Your task to perform on an android device: check google app version Image 0: 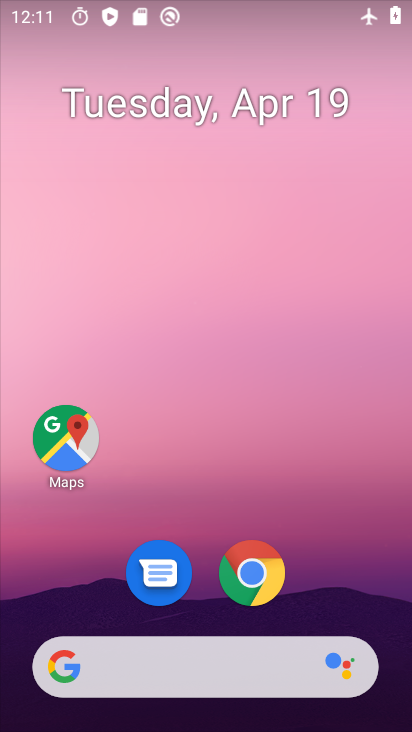
Step 0: drag from (319, 627) to (312, 75)
Your task to perform on an android device: check google app version Image 1: 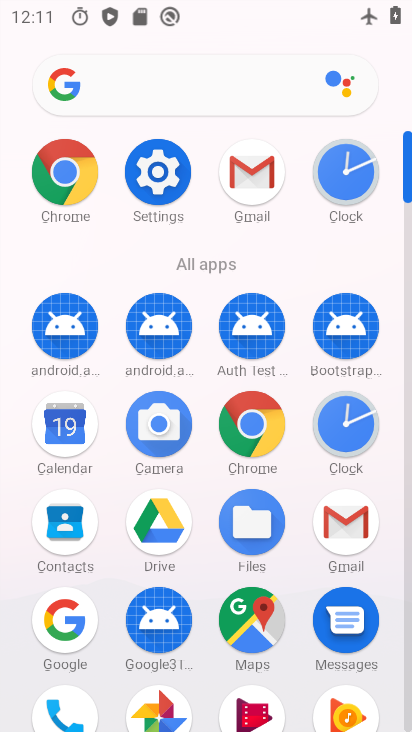
Step 1: drag from (284, 689) to (289, 394)
Your task to perform on an android device: check google app version Image 2: 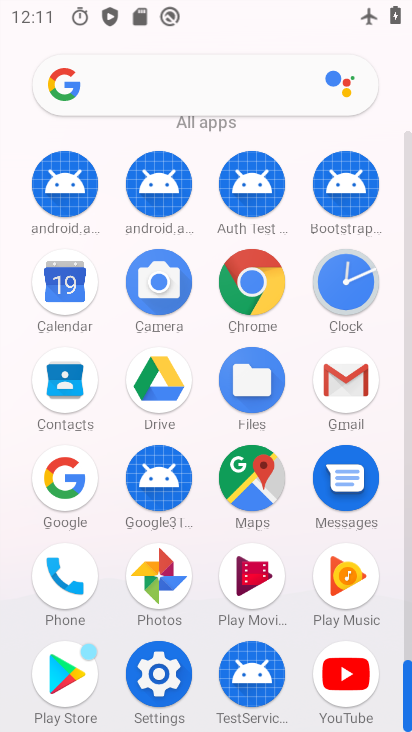
Step 2: click (62, 474)
Your task to perform on an android device: check google app version Image 3: 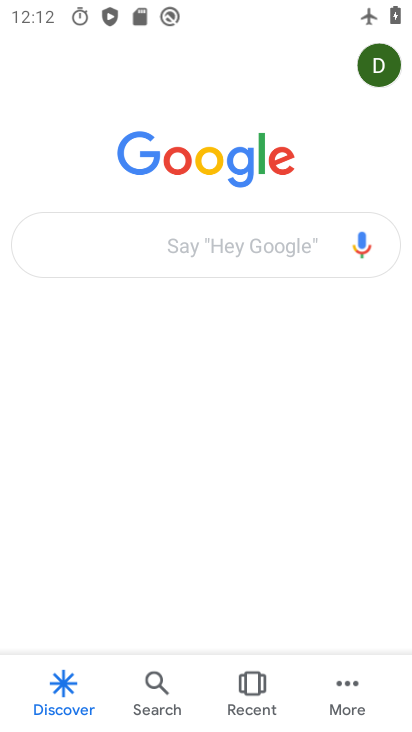
Step 3: click (353, 684)
Your task to perform on an android device: check google app version Image 4: 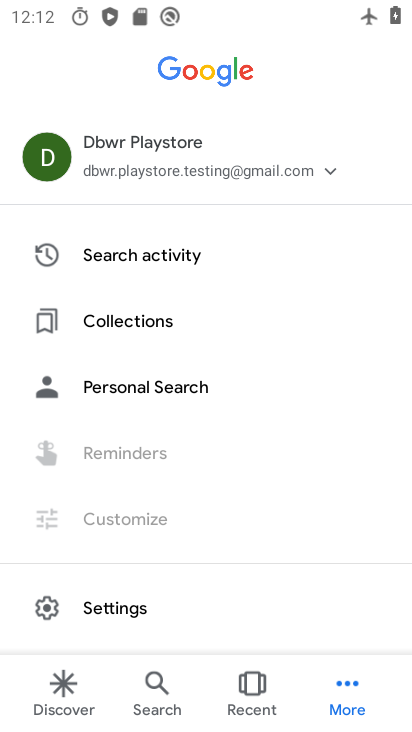
Step 4: click (153, 612)
Your task to perform on an android device: check google app version Image 5: 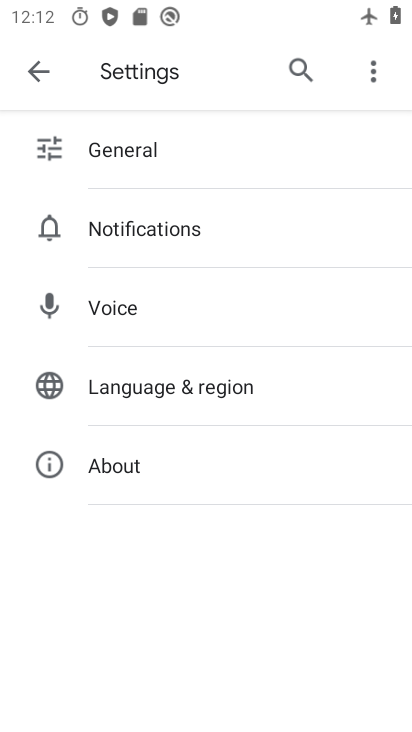
Step 5: click (121, 484)
Your task to perform on an android device: check google app version Image 6: 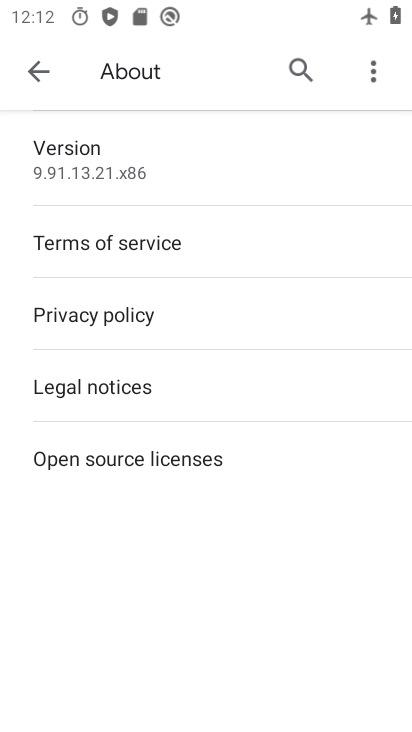
Step 6: task complete